Your task to perform on an android device: turn off translation in the chrome app Image 0: 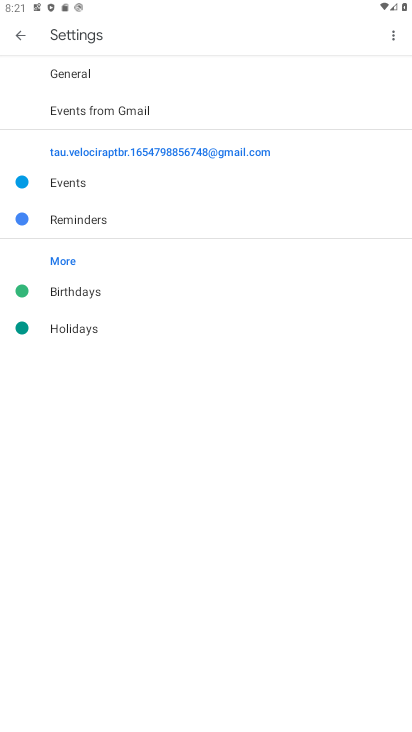
Step 0: press home button
Your task to perform on an android device: turn off translation in the chrome app Image 1: 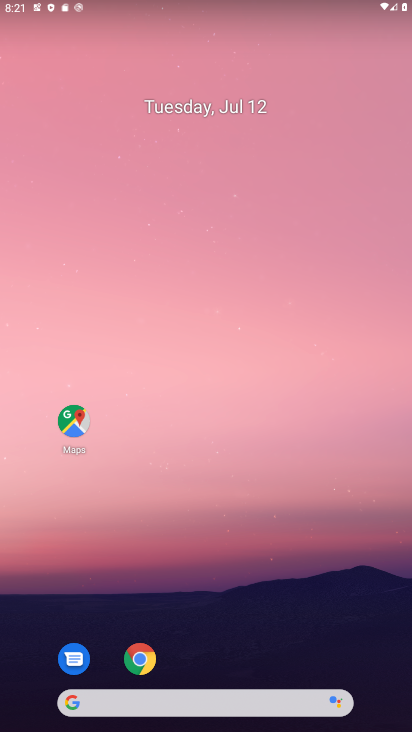
Step 1: click (140, 658)
Your task to perform on an android device: turn off translation in the chrome app Image 2: 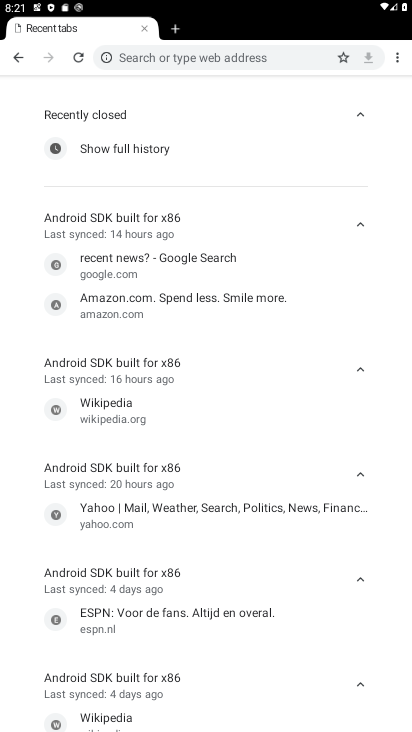
Step 2: click (397, 59)
Your task to perform on an android device: turn off translation in the chrome app Image 3: 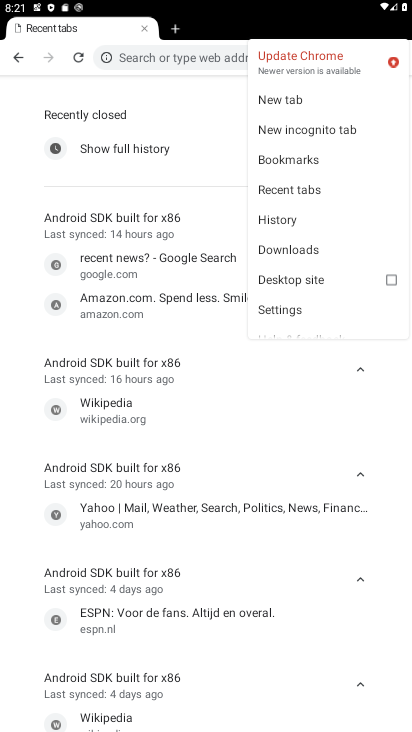
Step 3: click (279, 302)
Your task to perform on an android device: turn off translation in the chrome app Image 4: 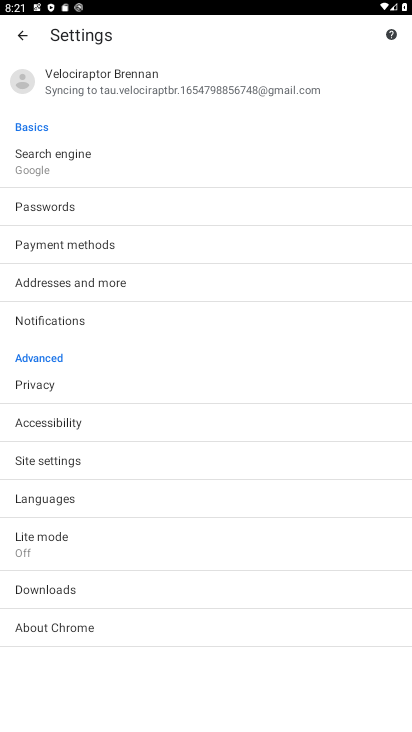
Step 4: click (56, 504)
Your task to perform on an android device: turn off translation in the chrome app Image 5: 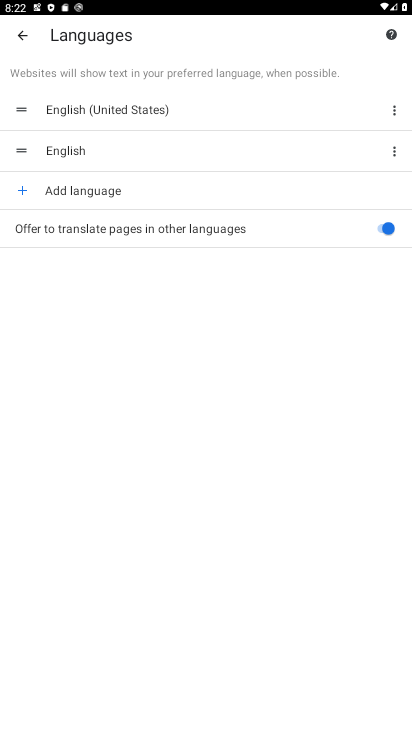
Step 5: click (381, 224)
Your task to perform on an android device: turn off translation in the chrome app Image 6: 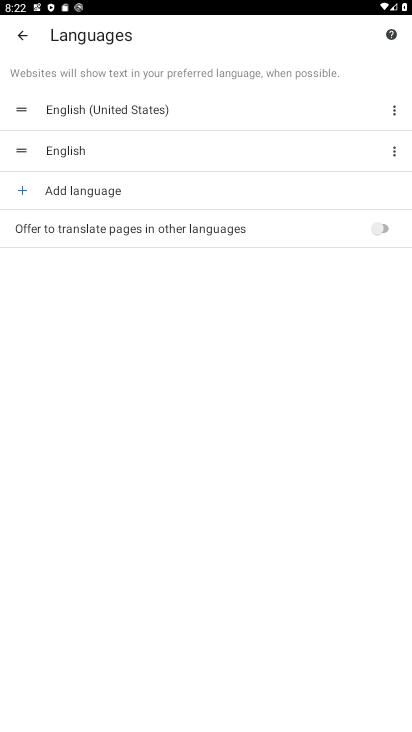
Step 6: task complete